Your task to perform on an android device: toggle notification dots Image 0: 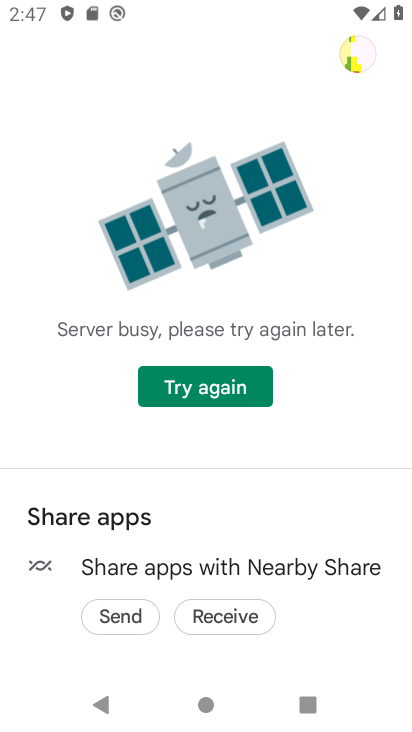
Step 0: click (390, 326)
Your task to perform on an android device: toggle notification dots Image 1: 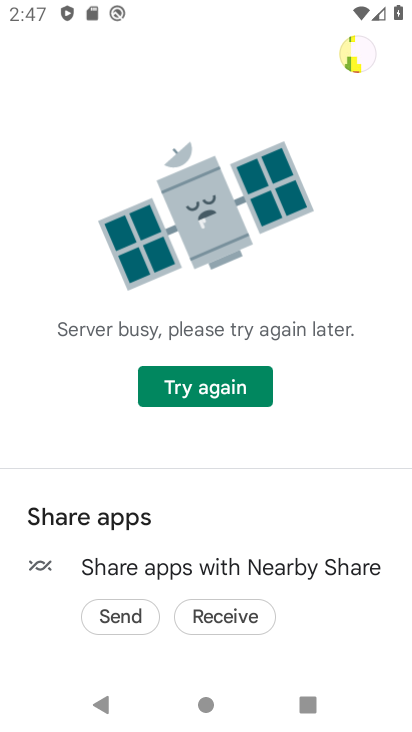
Step 1: press home button
Your task to perform on an android device: toggle notification dots Image 2: 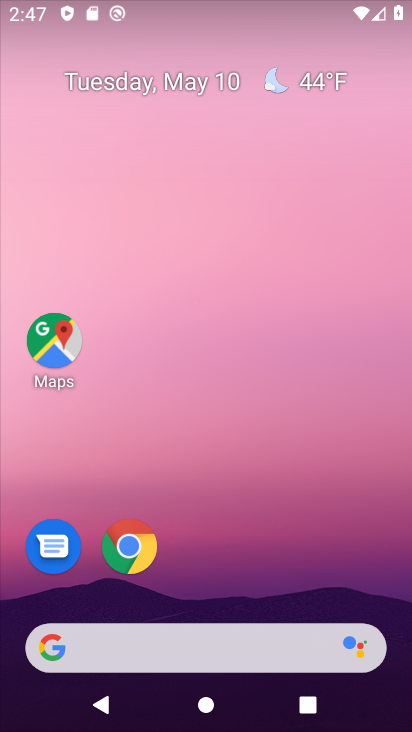
Step 2: drag from (213, 649) to (317, 76)
Your task to perform on an android device: toggle notification dots Image 3: 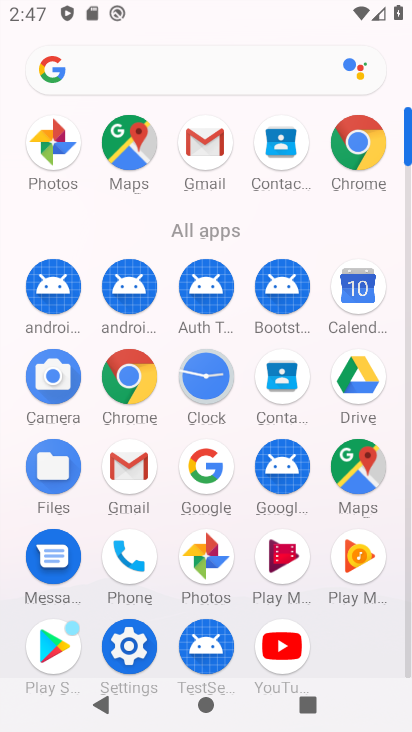
Step 3: click (129, 657)
Your task to perform on an android device: toggle notification dots Image 4: 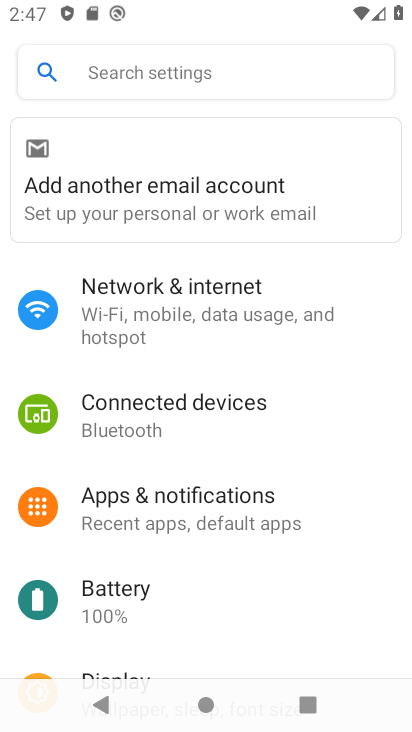
Step 4: click (241, 498)
Your task to perform on an android device: toggle notification dots Image 5: 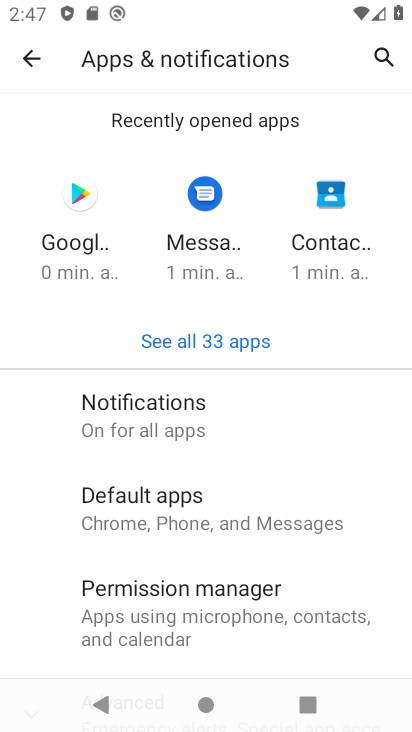
Step 5: click (193, 425)
Your task to perform on an android device: toggle notification dots Image 6: 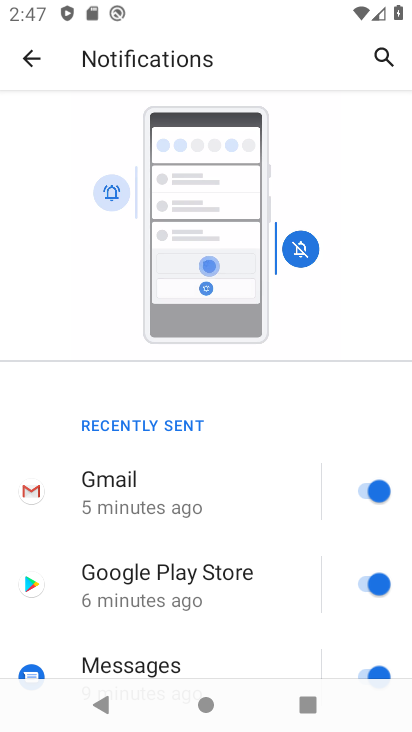
Step 6: drag from (206, 646) to (294, 191)
Your task to perform on an android device: toggle notification dots Image 7: 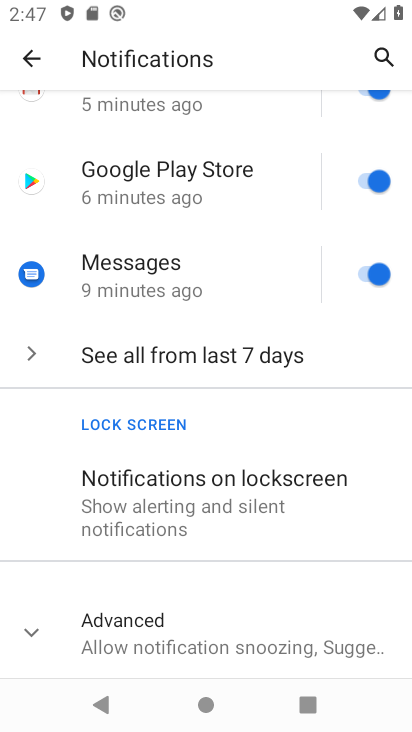
Step 7: drag from (284, 576) to (318, 322)
Your task to perform on an android device: toggle notification dots Image 8: 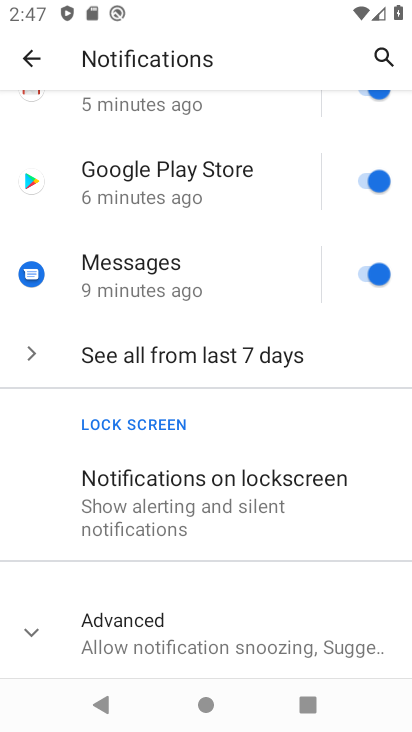
Step 8: click (186, 639)
Your task to perform on an android device: toggle notification dots Image 9: 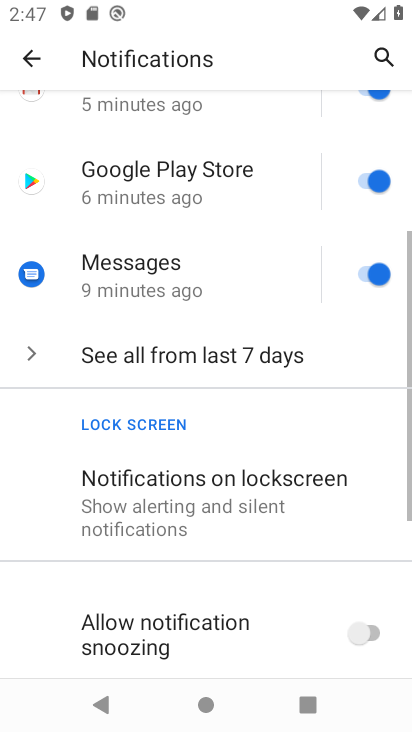
Step 9: click (265, 712)
Your task to perform on an android device: toggle notification dots Image 10: 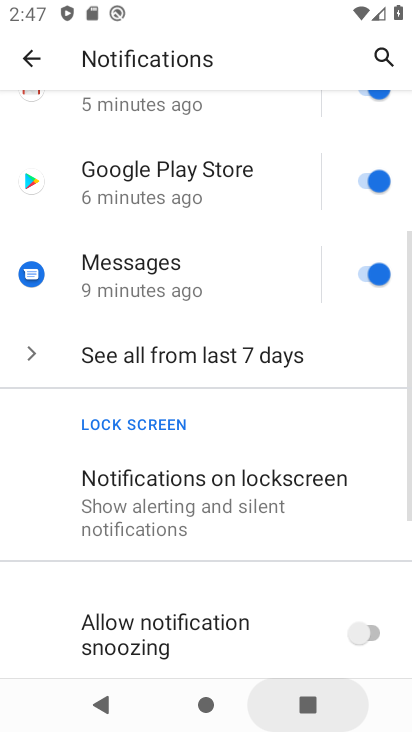
Step 10: drag from (256, 667) to (288, 68)
Your task to perform on an android device: toggle notification dots Image 11: 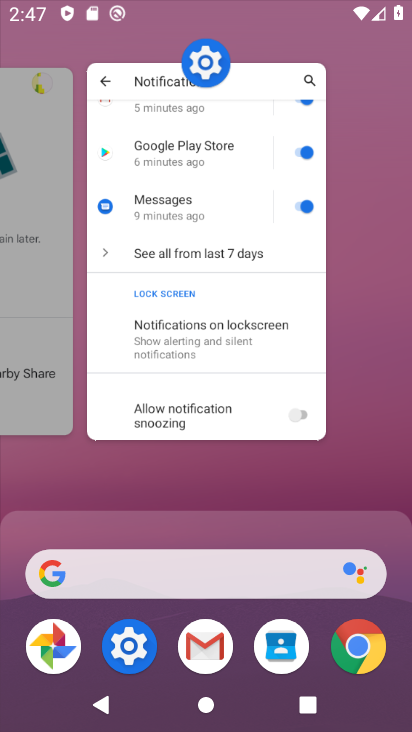
Step 11: click (233, 230)
Your task to perform on an android device: toggle notification dots Image 12: 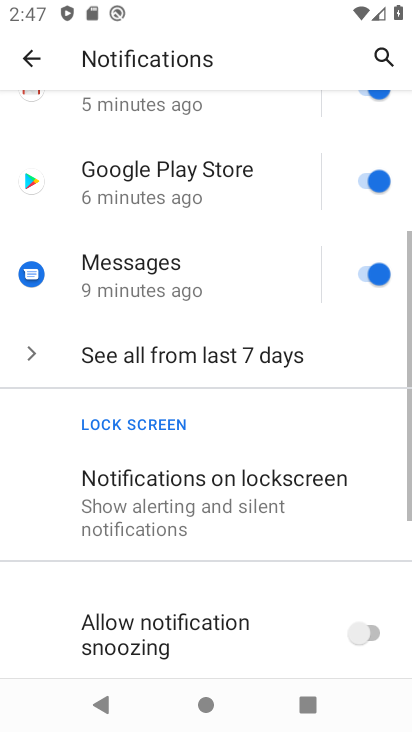
Step 12: drag from (246, 594) to (294, 10)
Your task to perform on an android device: toggle notification dots Image 13: 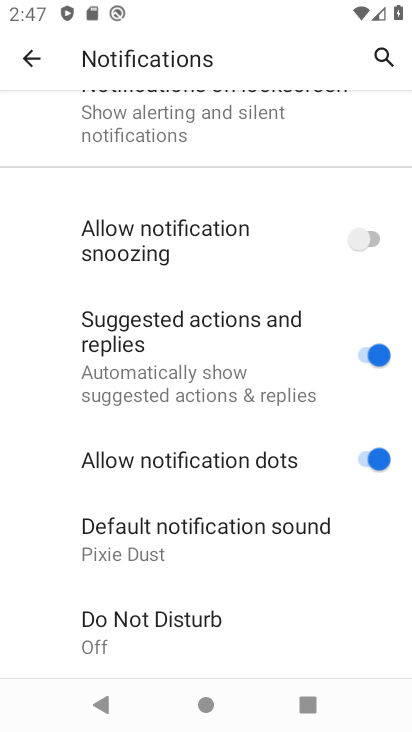
Step 13: drag from (186, 242) to (188, 558)
Your task to perform on an android device: toggle notification dots Image 14: 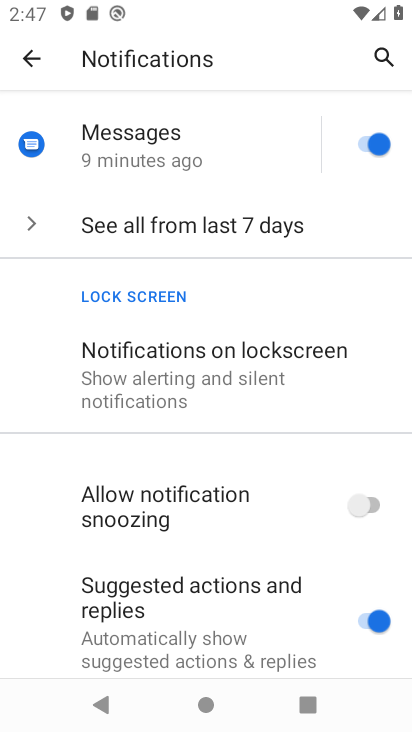
Step 14: drag from (294, 639) to (335, 235)
Your task to perform on an android device: toggle notification dots Image 15: 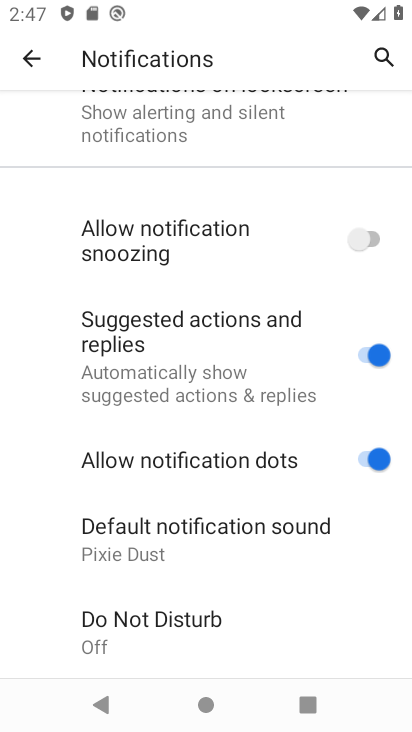
Step 15: click (364, 461)
Your task to perform on an android device: toggle notification dots Image 16: 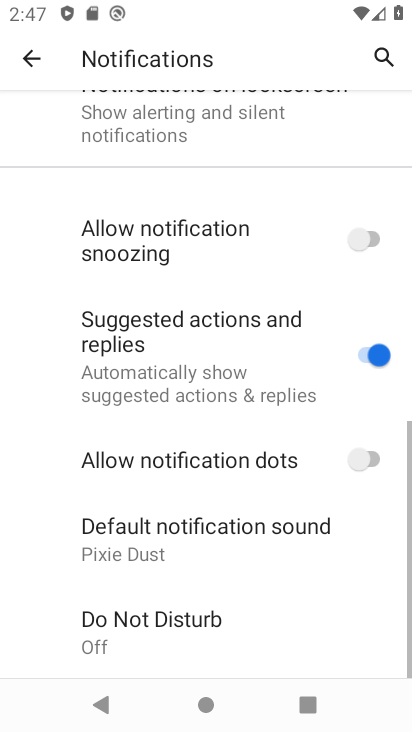
Step 16: task complete